Your task to perform on an android device: Open the map Image 0: 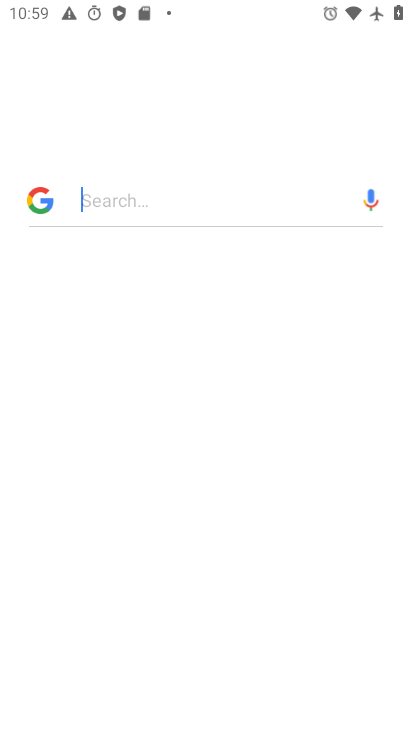
Step 0: drag from (254, 641) to (266, 142)
Your task to perform on an android device: Open the map Image 1: 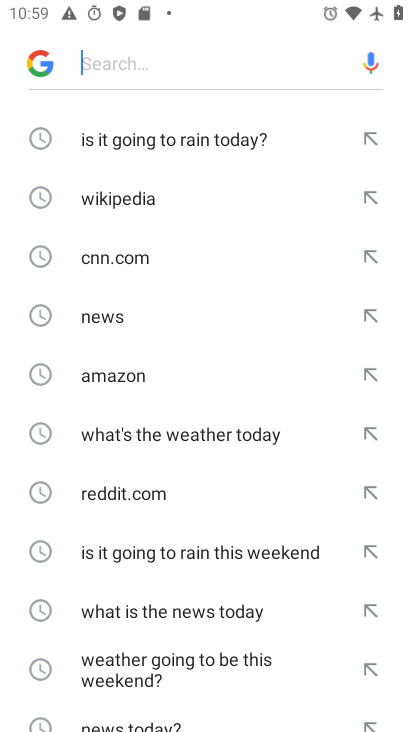
Step 1: press home button
Your task to perform on an android device: Open the map Image 2: 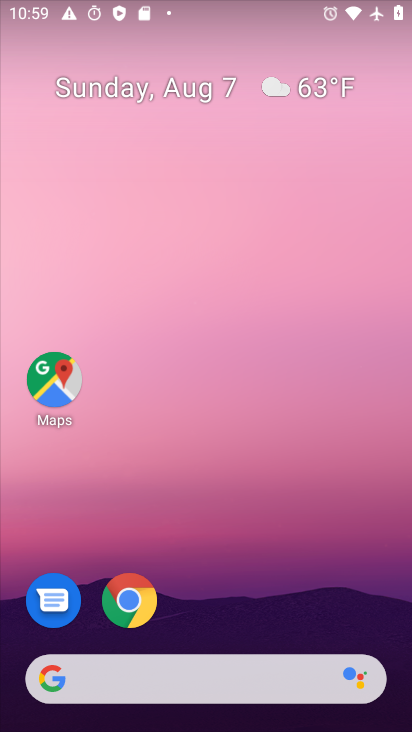
Step 2: drag from (242, 641) to (253, 273)
Your task to perform on an android device: Open the map Image 3: 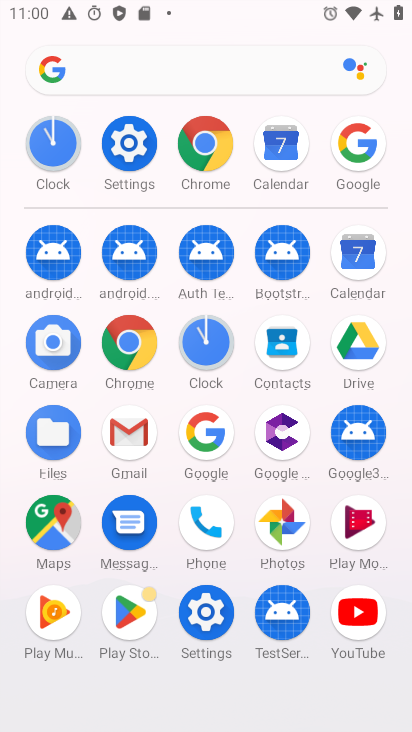
Step 3: click (69, 545)
Your task to perform on an android device: Open the map Image 4: 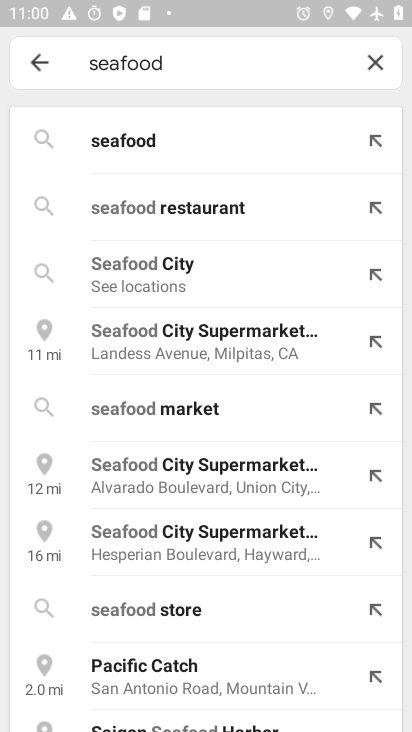
Step 4: click (41, 70)
Your task to perform on an android device: Open the map Image 5: 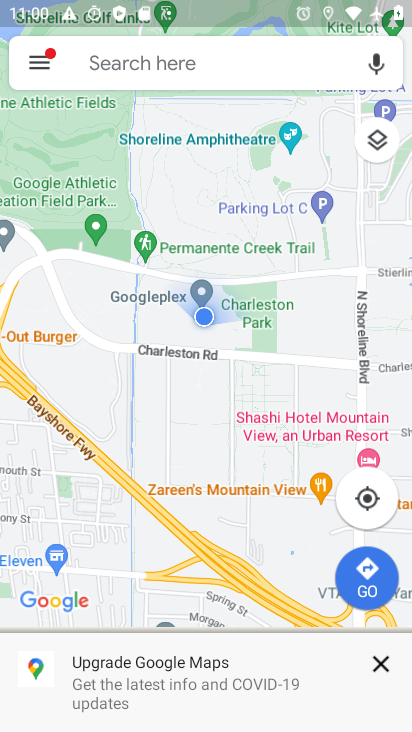
Step 5: task complete